Your task to perform on an android device: Toggle the flashlight Image 0: 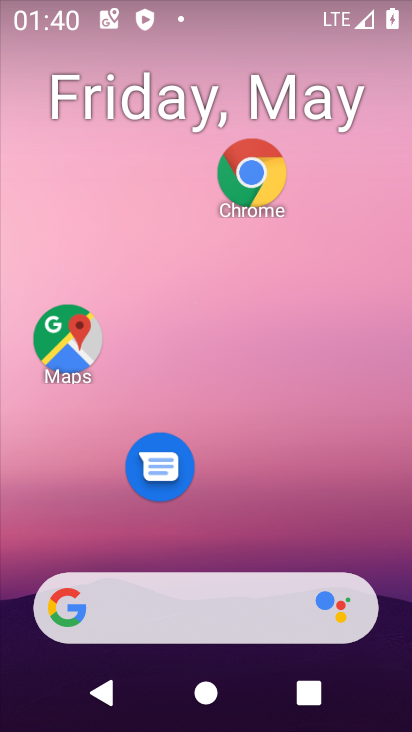
Step 0: drag from (237, 631) to (262, 249)
Your task to perform on an android device: Toggle the flashlight Image 1: 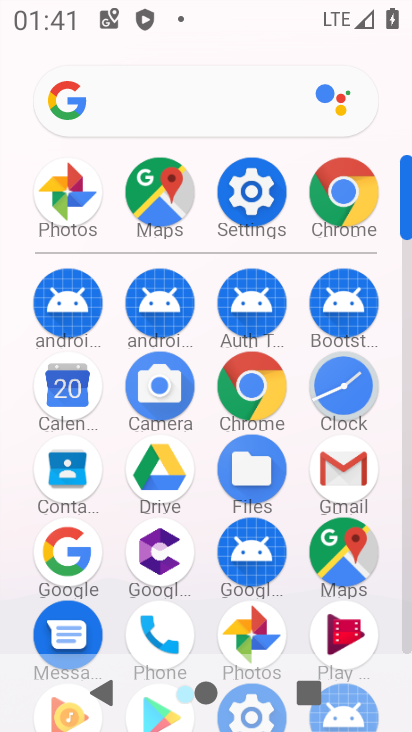
Step 1: click (240, 197)
Your task to perform on an android device: Toggle the flashlight Image 2: 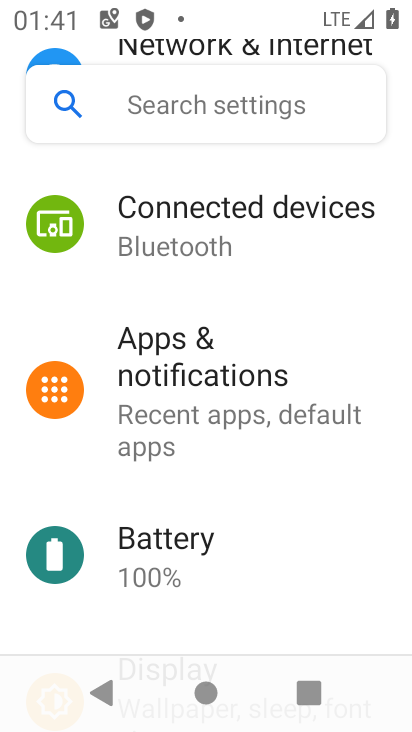
Step 2: click (213, 102)
Your task to perform on an android device: Toggle the flashlight Image 3: 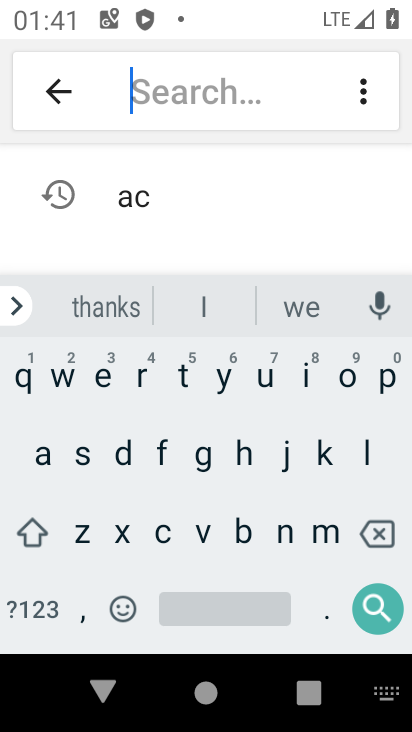
Step 3: click (170, 453)
Your task to perform on an android device: Toggle the flashlight Image 4: 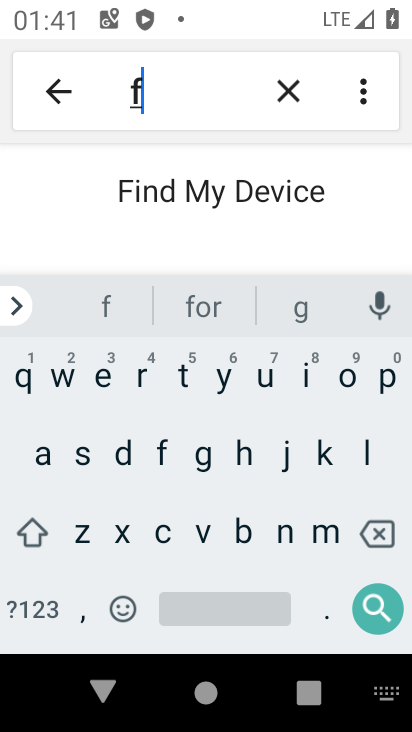
Step 4: click (369, 458)
Your task to perform on an android device: Toggle the flashlight Image 5: 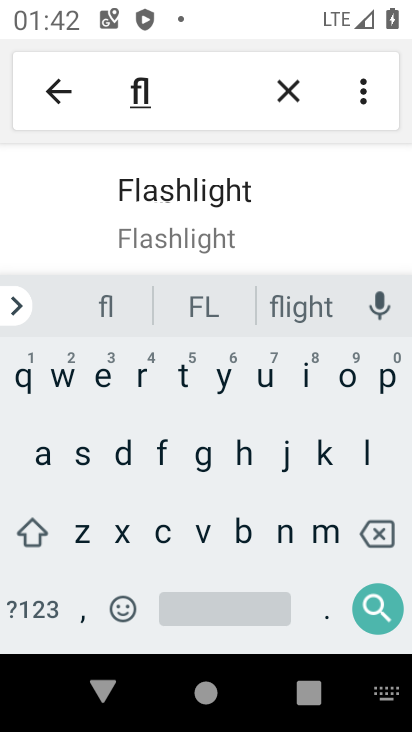
Step 5: click (195, 226)
Your task to perform on an android device: Toggle the flashlight Image 6: 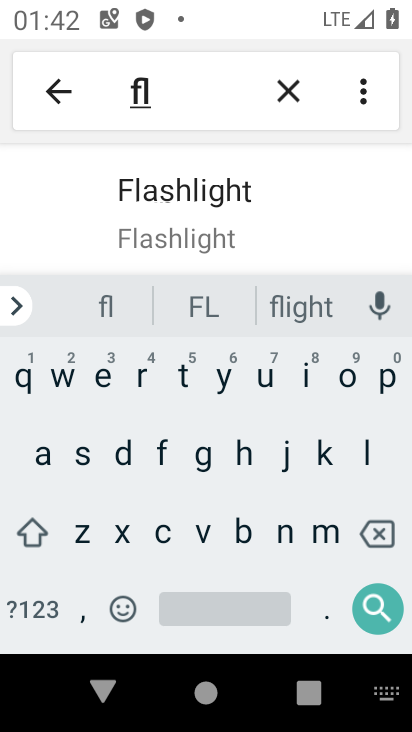
Step 6: click (195, 225)
Your task to perform on an android device: Toggle the flashlight Image 7: 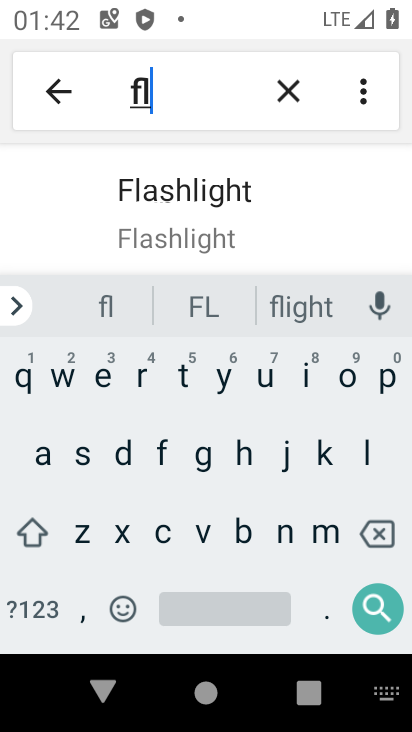
Step 7: task complete